Your task to perform on an android device: change the clock display to digital Image 0: 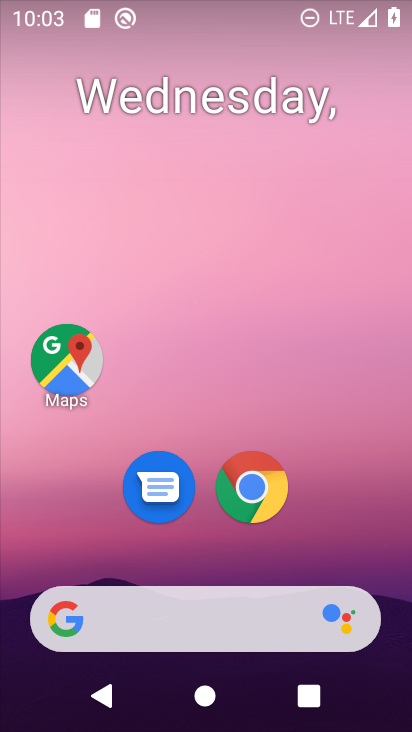
Step 0: drag from (338, 518) to (201, 23)
Your task to perform on an android device: change the clock display to digital Image 1: 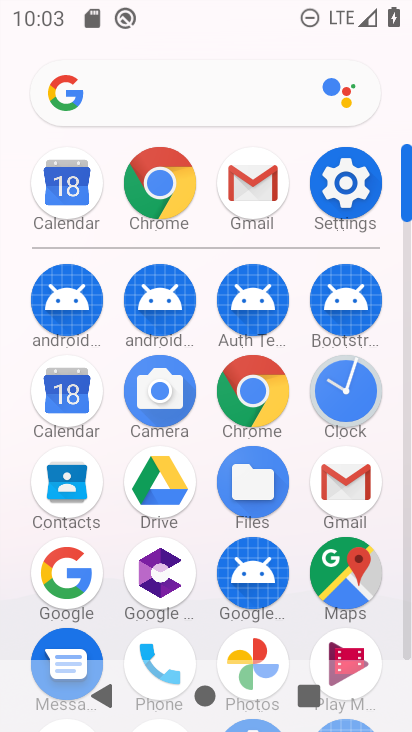
Step 1: click (329, 389)
Your task to perform on an android device: change the clock display to digital Image 2: 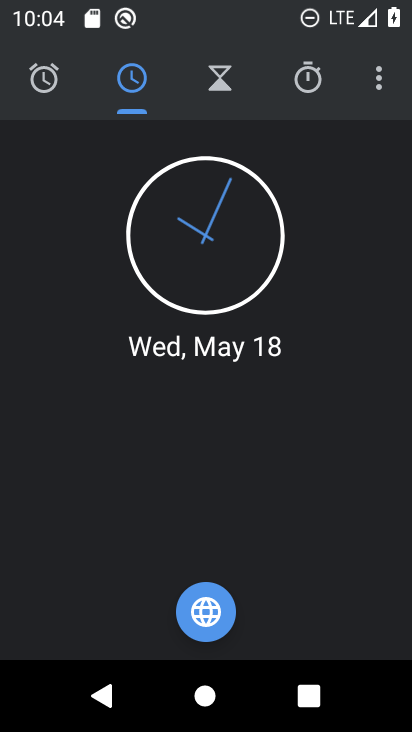
Step 2: click (379, 76)
Your task to perform on an android device: change the clock display to digital Image 3: 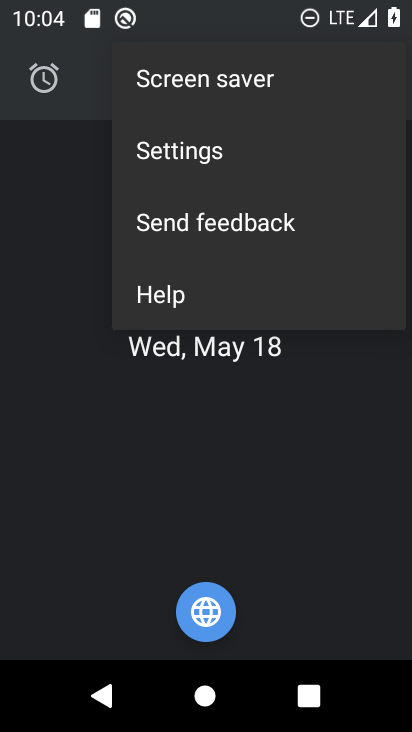
Step 3: click (210, 148)
Your task to perform on an android device: change the clock display to digital Image 4: 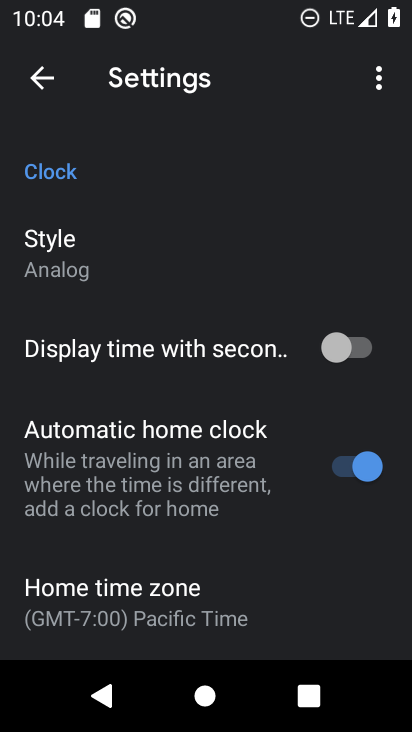
Step 4: click (57, 239)
Your task to perform on an android device: change the clock display to digital Image 5: 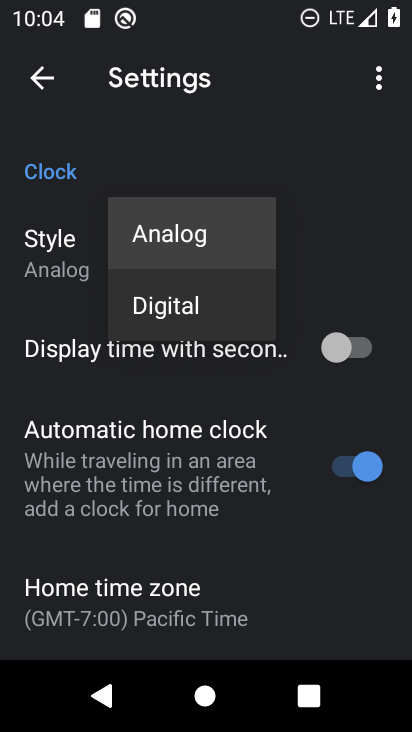
Step 5: click (158, 302)
Your task to perform on an android device: change the clock display to digital Image 6: 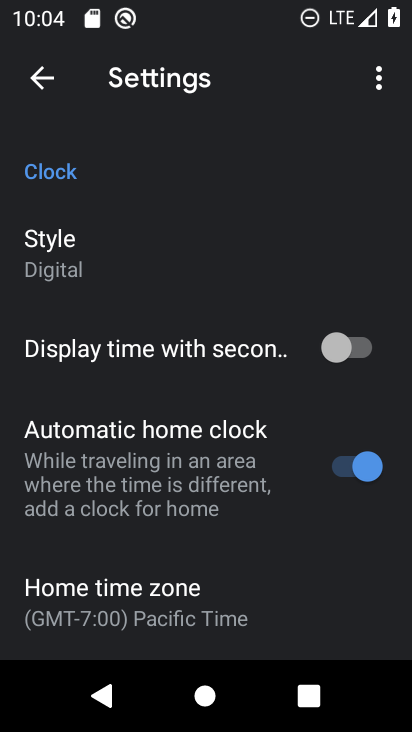
Step 6: task complete